Your task to perform on an android device: Turn off the flashlight Image 0: 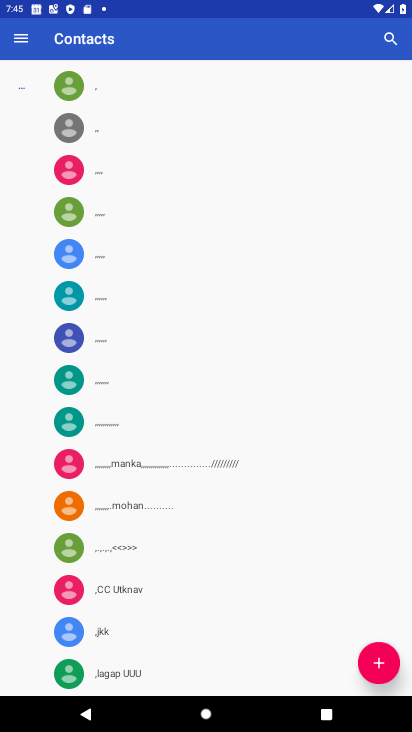
Step 0: press home button
Your task to perform on an android device: Turn off the flashlight Image 1: 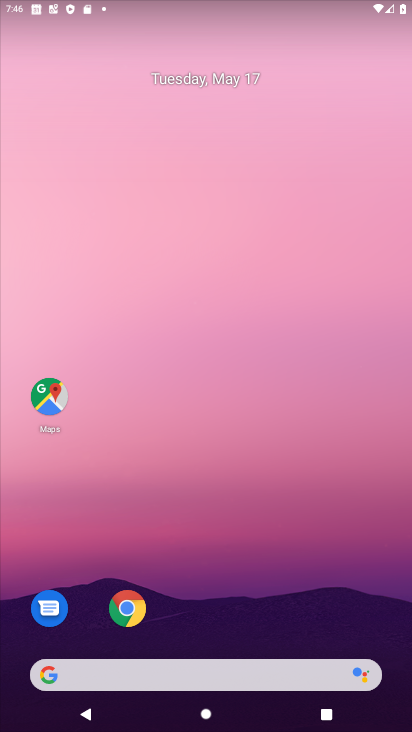
Step 1: drag from (231, 624) to (373, 10)
Your task to perform on an android device: Turn off the flashlight Image 2: 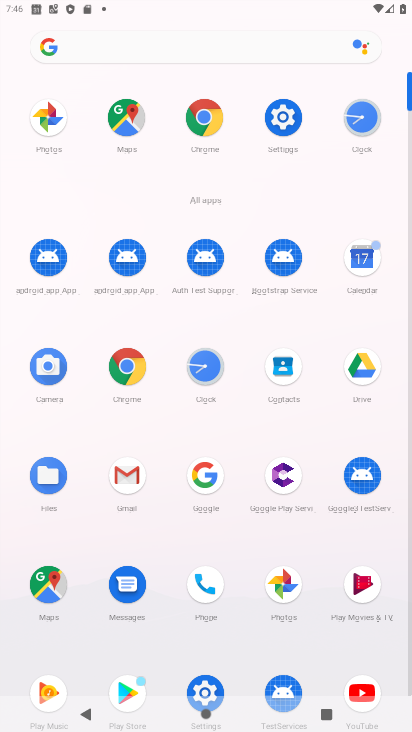
Step 2: click (288, 125)
Your task to perform on an android device: Turn off the flashlight Image 3: 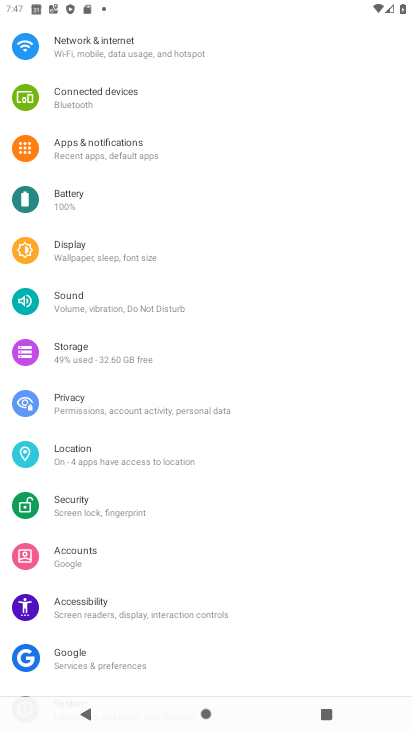
Step 3: task complete